Your task to perform on an android device: Search for seafood restaurants on Google Maps Image 0: 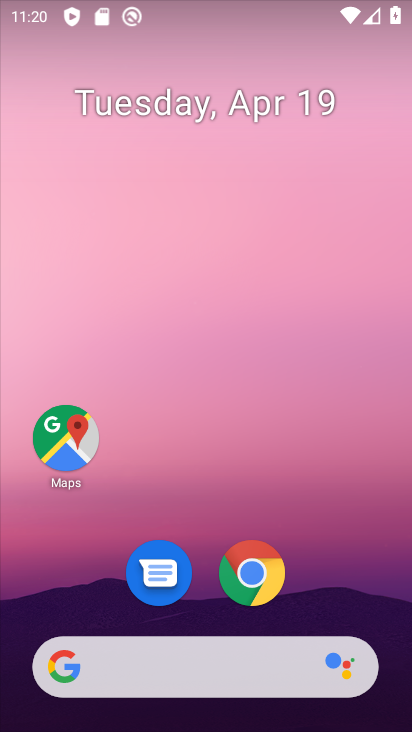
Step 0: click (81, 428)
Your task to perform on an android device: Search for seafood restaurants on Google Maps Image 1: 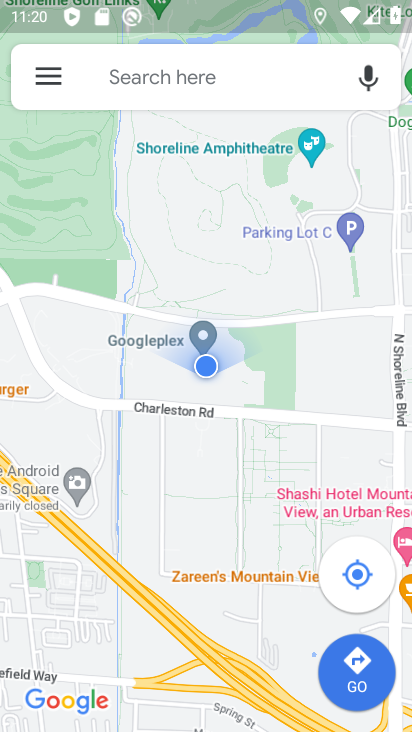
Step 1: click (148, 85)
Your task to perform on an android device: Search for seafood restaurants on Google Maps Image 2: 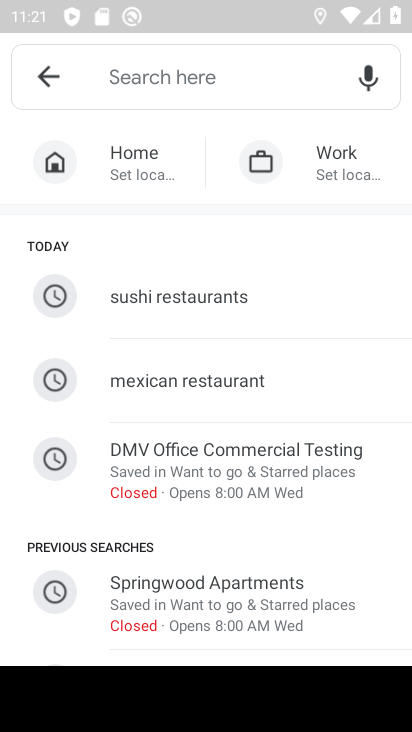
Step 2: type "seafood restaurant"
Your task to perform on an android device: Search for seafood restaurants on Google Maps Image 3: 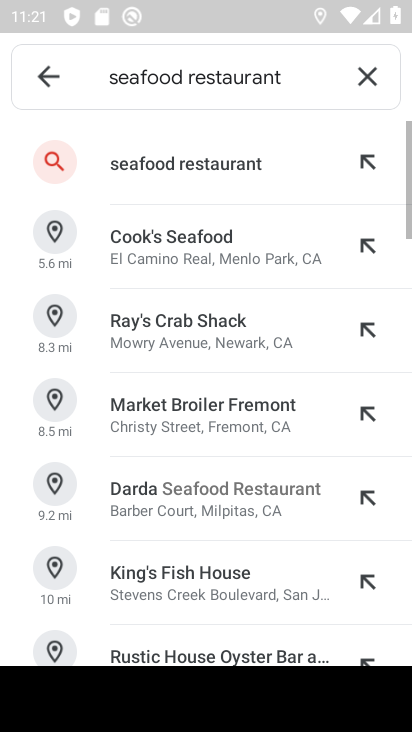
Step 3: click (160, 170)
Your task to perform on an android device: Search for seafood restaurants on Google Maps Image 4: 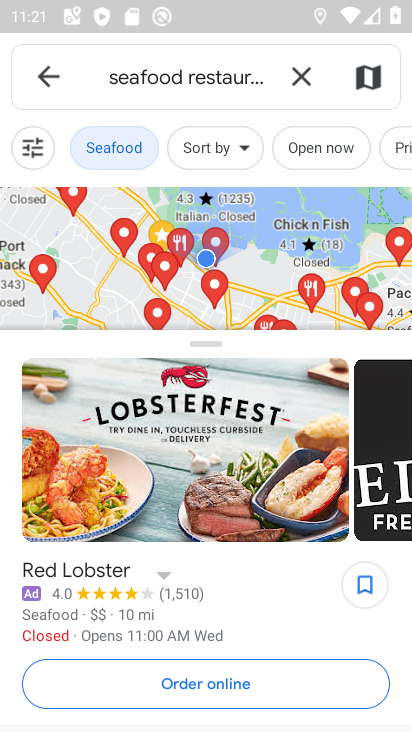
Step 4: task complete